Your task to perform on an android device: turn on priority inbox in the gmail app Image 0: 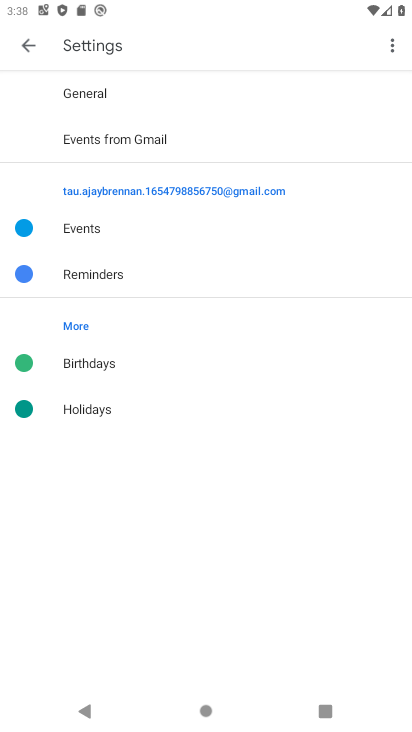
Step 0: press home button
Your task to perform on an android device: turn on priority inbox in the gmail app Image 1: 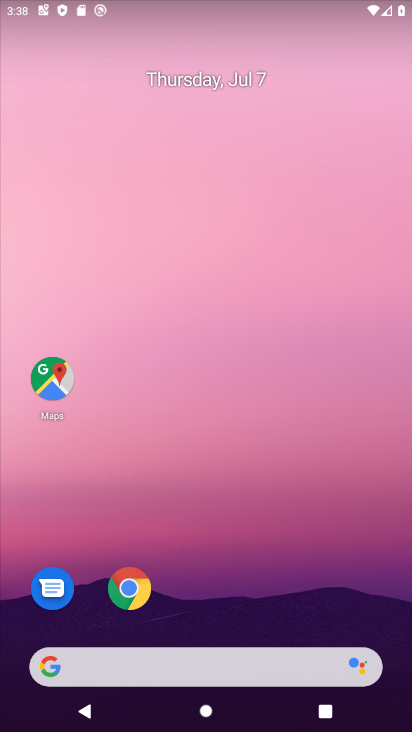
Step 1: drag from (199, 655) to (232, 0)
Your task to perform on an android device: turn on priority inbox in the gmail app Image 2: 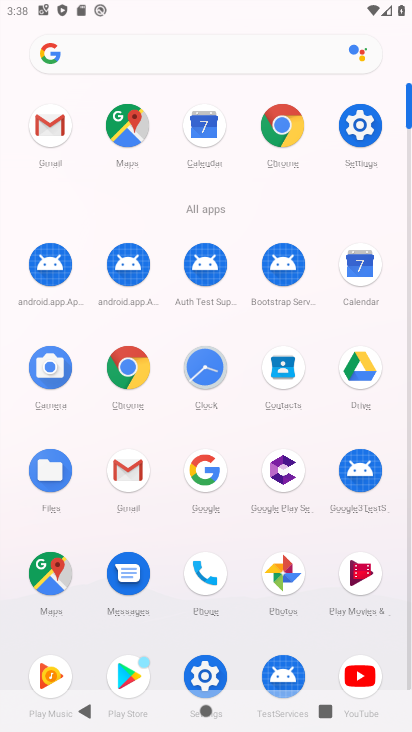
Step 2: click (124, 452)
Your task to perform on an android device: turn on priority inbox in the gmail app Image 3: 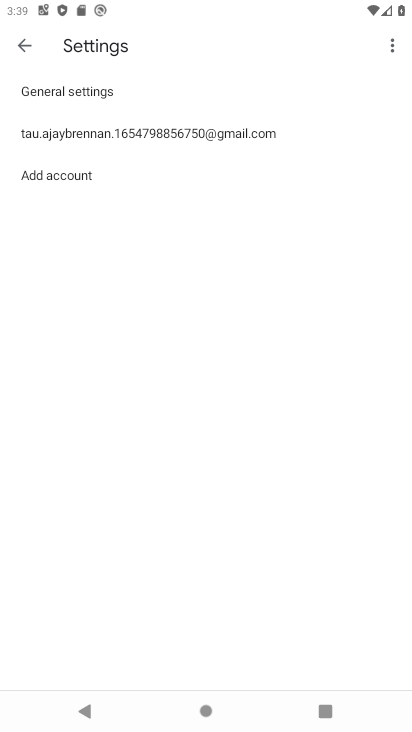
Step 3: press back button
Your task to perform on an android device: turn on priority inbox in the gmail app Image 4: 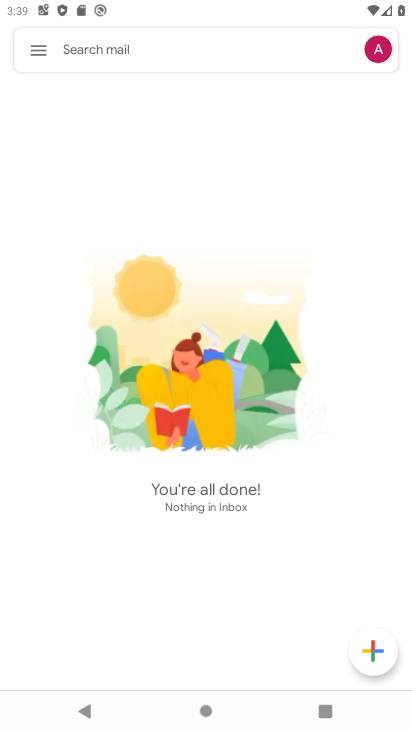
Step 4: click (31, 49)
Your task to perform on an android device: turn on priority inbox in the gmail app Image 5: 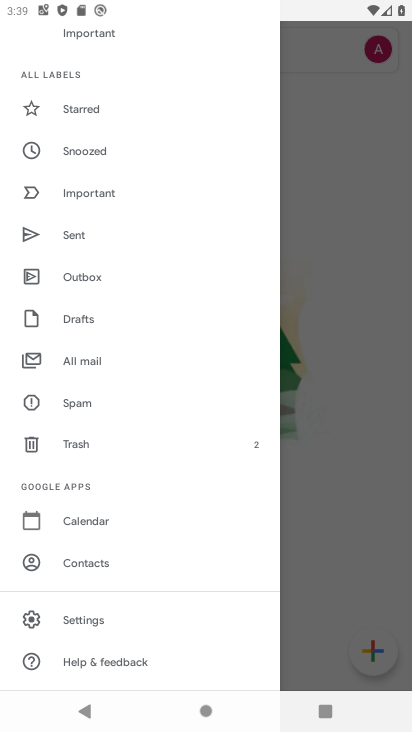
Step 5: click (113, 627)
Your task to perform on an android device: turn on priority inbox in the gmail app Image 6: 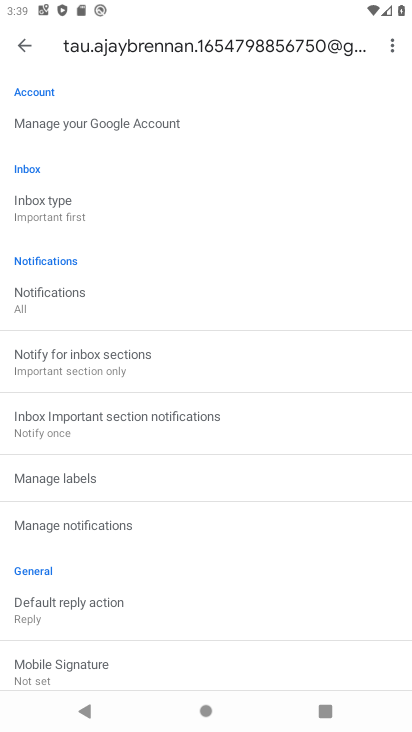
Step 6: click (87, 211)
Your task to perform on an android device: turn on priority inbox in the gmail app Image 7: 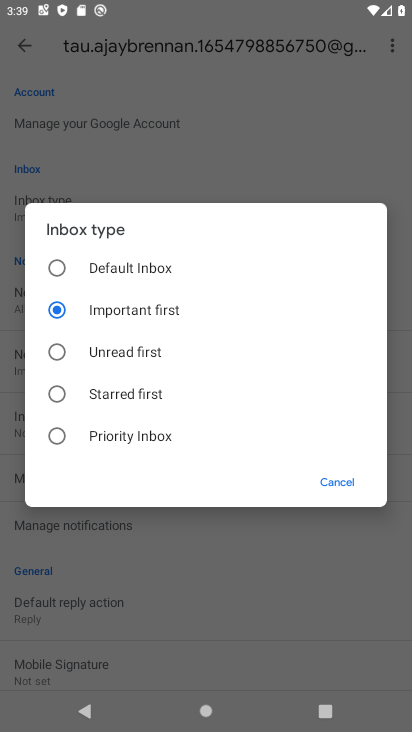
Step 7: click (61, 437)
Your task to perform on an android device: turn on priority inbox in the gmail app Image 8: 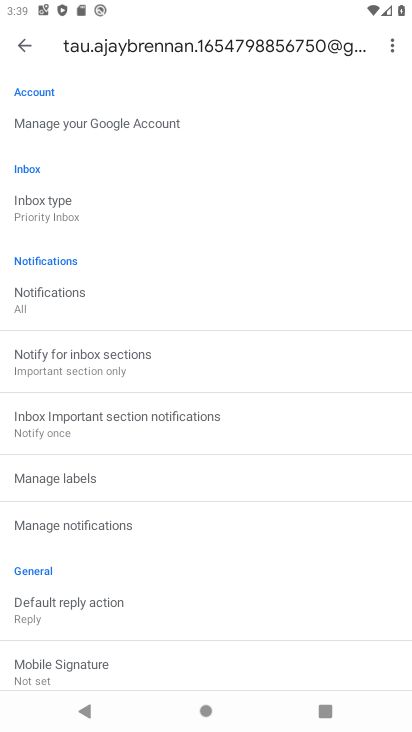
Step 8: task complete